Your task to perform on an android device: turn on improve location accuracy Image 0: 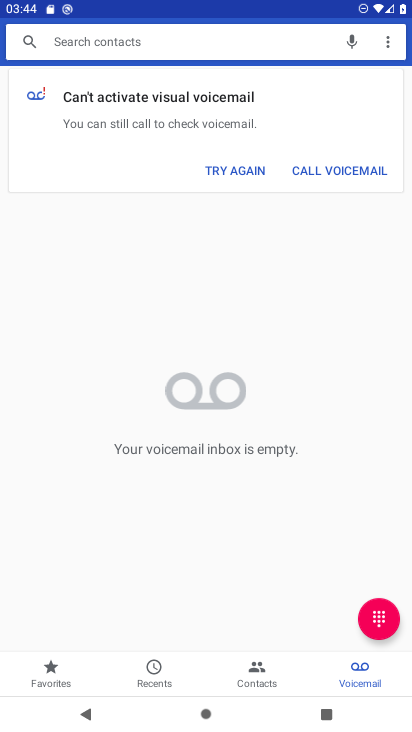
Step 0: drag from (177, 618) to (217, 373)
Your task to perform on an android device: turn on improve location accuracy Image 1: 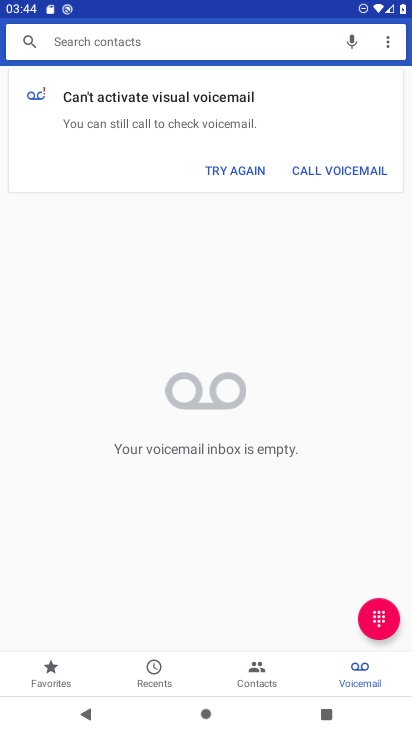
Step 1: press home button
Your task to perform on an android device: turn on improve location accuracy Image 2: 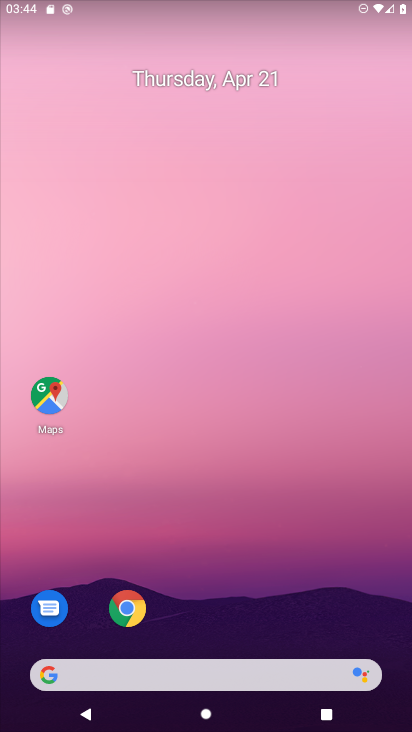
Step 2: drag from (248, 512) to (267, 225)
Your task to perform on an android device: turn on improve location accuracy Image 3: 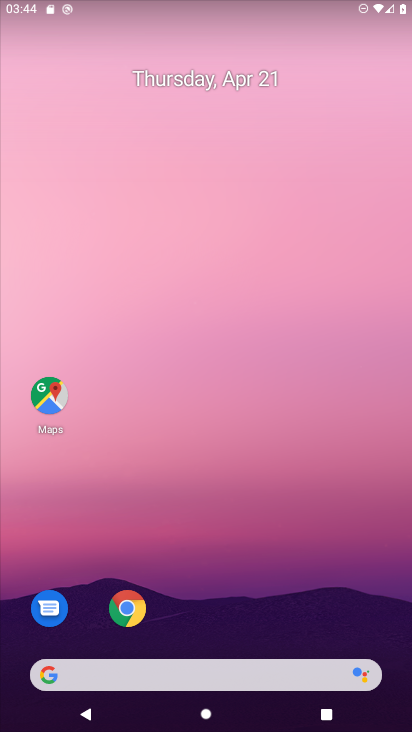
Step 3: drag from (189, 647) to (270, 194)
Your task to perform on an android device: turn on improve location accuracy Image 4: 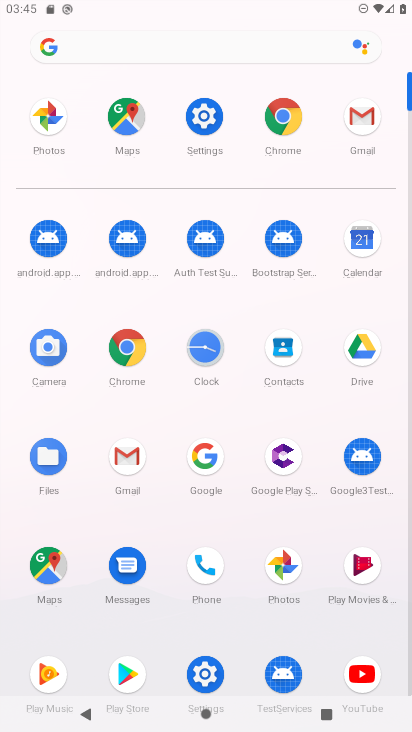
Step 4: click (198, 111)
Your task to perform on an android device: turn on improve location accuracy Image 5: 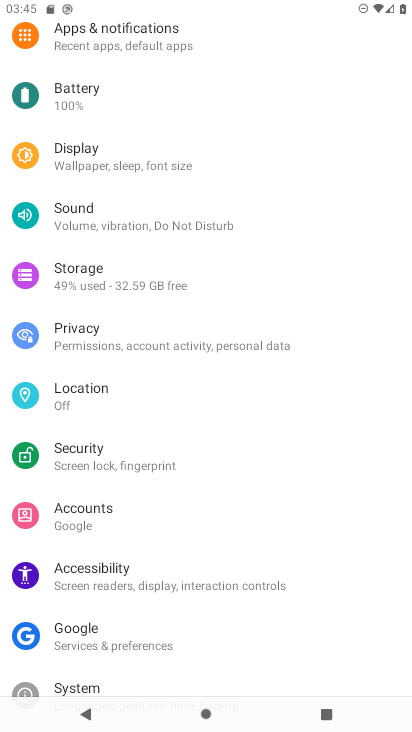
Step 5: click (98, 402)
Your task to perform on an android device: turn on improve location accuracy Image 6: 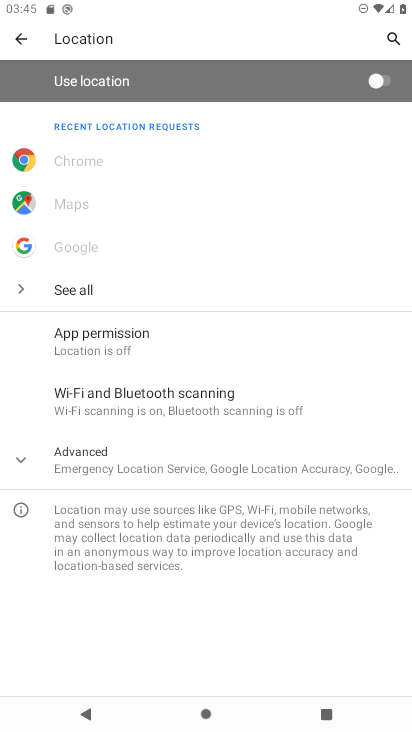
Step 6: click (140, 459)
Your task to perform on an android device: turn on improve location accuracy Image 7: 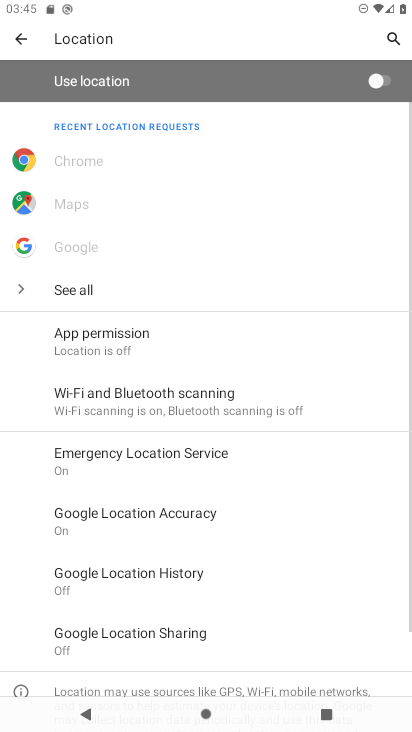
Step 7: drag from (156, 653) to (178, 304)
Your task to perform on an android device: turn on improve location accuracy Image 8: 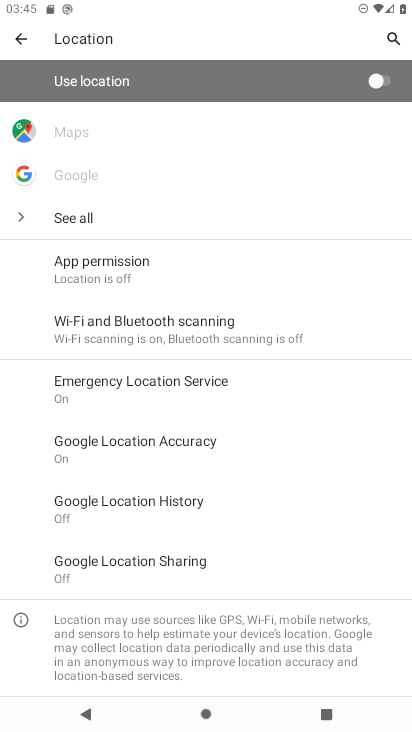
Step 8: click (189, 448)
Your task to perform on an android device: turn on improve location accuracy Image 9: 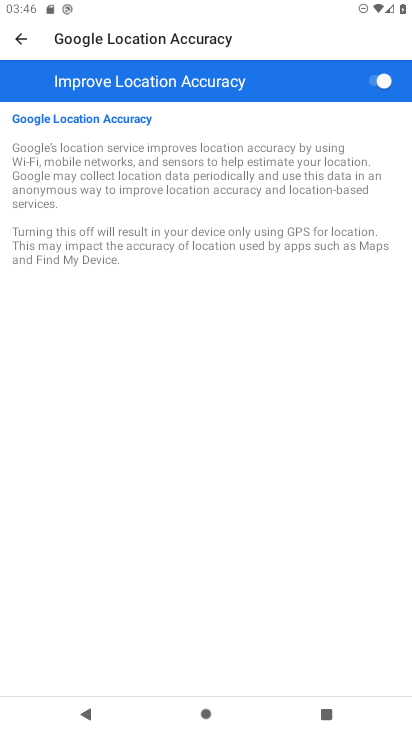
Step 9: task complete